Your task to perform on an android device: add a label to a message in the gmail app Image 0: 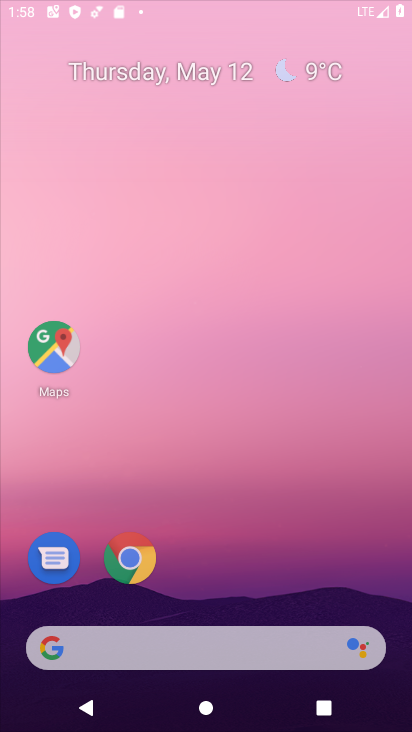
Step 0: drag from (207, 597) to (274, 190)
Your task to perform on an android device: add a label to a message in the gmail app Image 1: 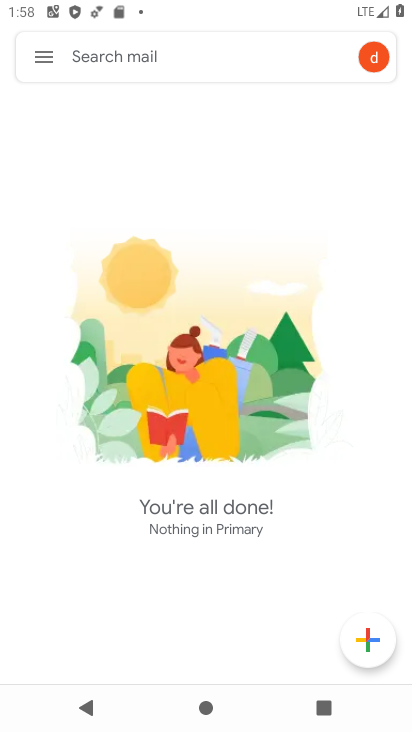
Step 1: press home button
Your task to perform on an android device: add a label to a message in the gmail app Image 2: 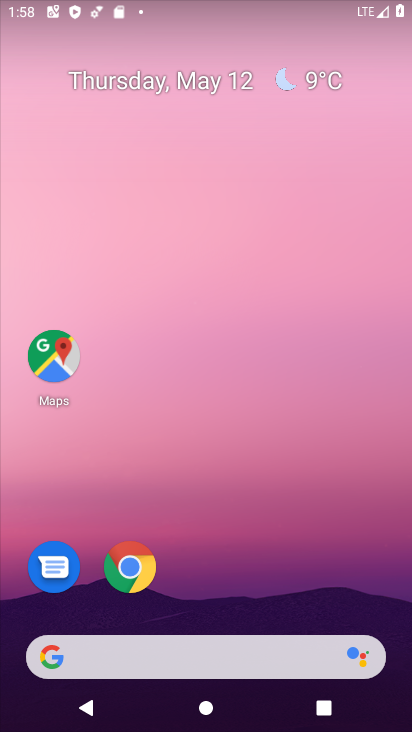
Step 2: click (235, 143)
Your task to perform on an android device: add a label to a message in the gmail app Image 3: 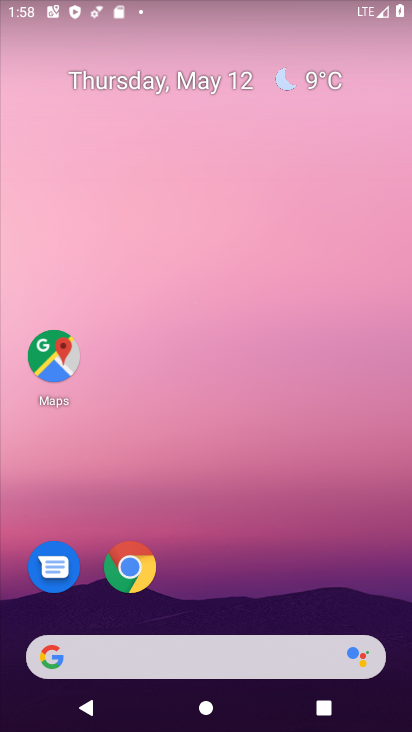
Step 3: drag from (236, 583) to (261, 67)
Your task to perform on an android device: add a label to a message in the gmail app Image 4: 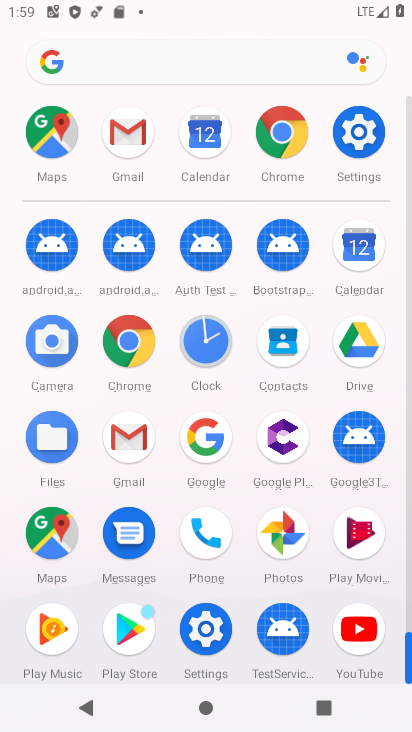
Step 4: click (119, 150)
Your task to perform on an android device: add a label to a message in the gmail app Image 5: 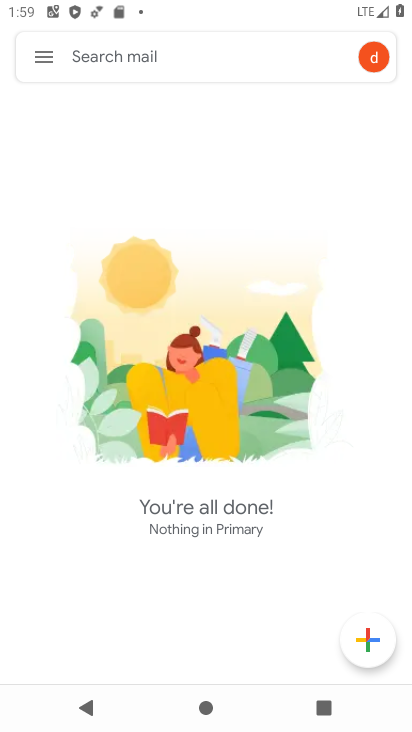
Step 5: click (41, 61)
Your task to perform on an android device: add a label to a message in the gmail app Image 6: 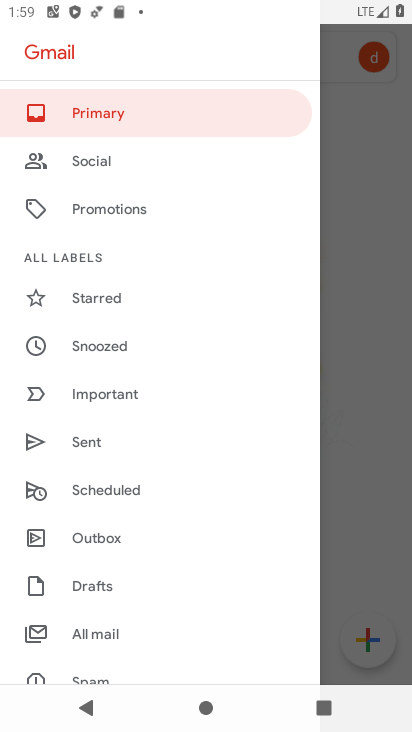
Step 6: click (115, 628)
Your task to perform on an android device: add a label to a message in the gmail app Image 7: 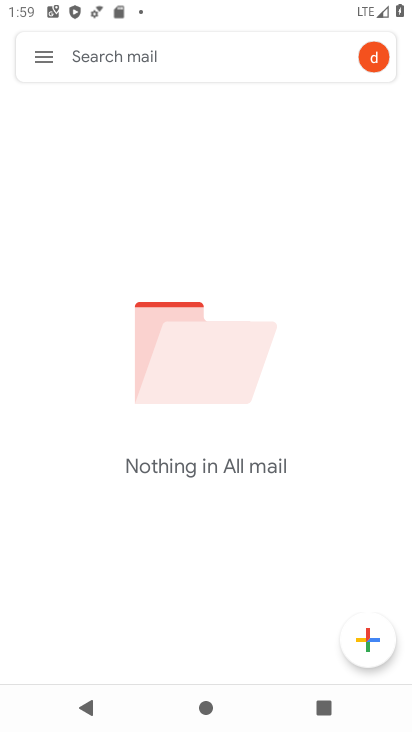
Step 7: task complete